Your task to perform on an android device: turn off javascript in the chrome app Image 0: 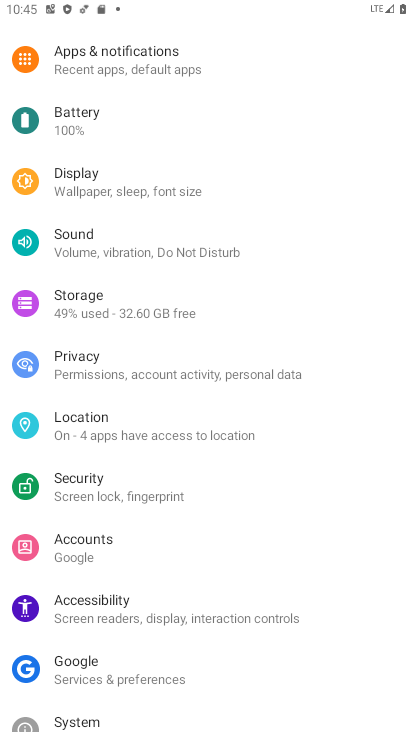
Step 0: press home button
Your task to perform on an android device: turn off javascript in the chrome app Image 1: 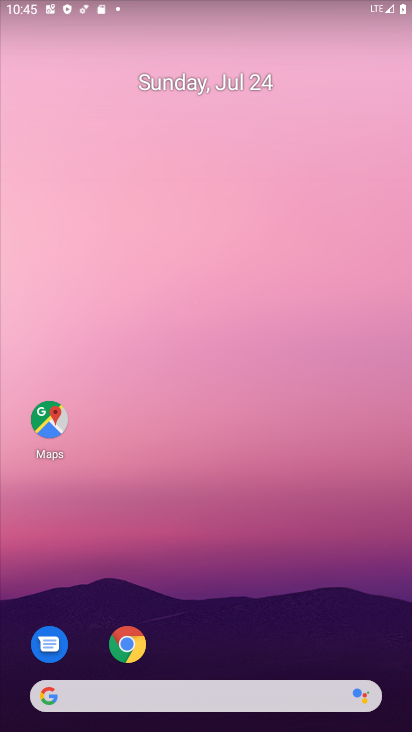
Step 1: click (133, 655)
Your task to perform on an android device: turn off javascript in the chrome app Image 2: 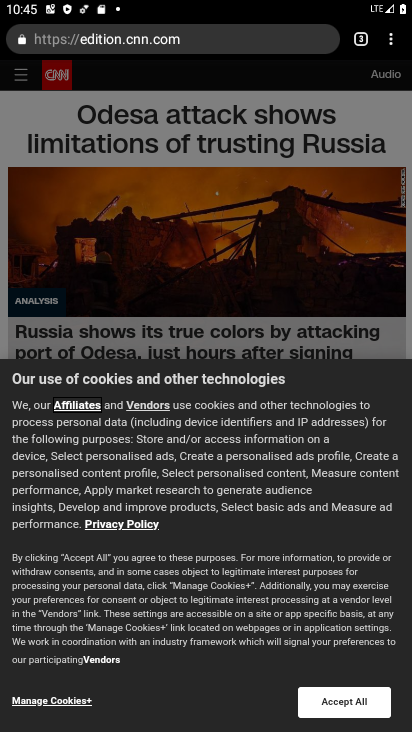
Step 2: click (394, 46)
Your task to perform on an android device: turn off javascript in the chrome app Image 3: 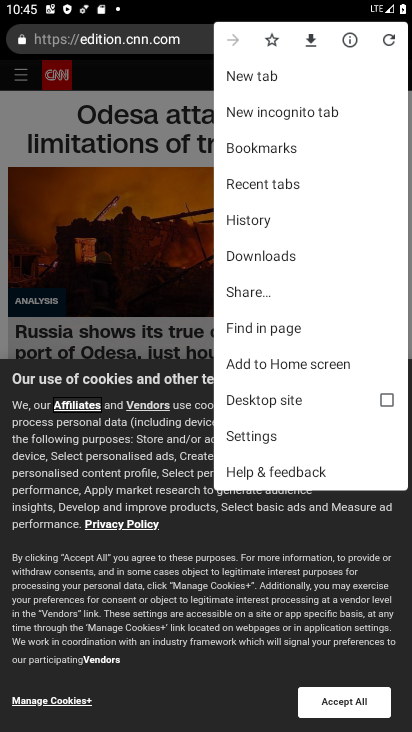
Step 3: click (272, 431)
Your task to perform on an android device: turn off javascript in the chrome app Image 4: 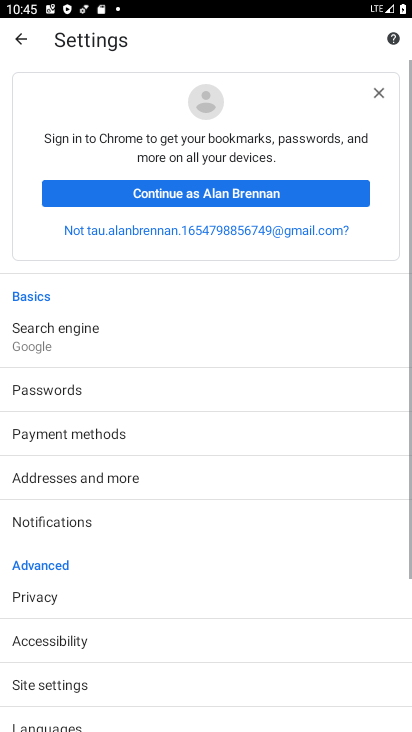
Step 4: click (54, 691)
Your task to perform on an android device: turn off javascript in the chrome app Image 5: 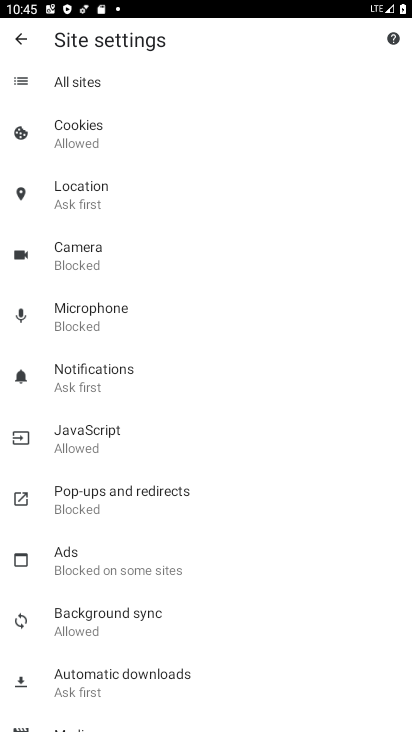
Step 5: click (96, 431)
Your task to perform on an android device: turn off javascript in the chrome app Image 6: 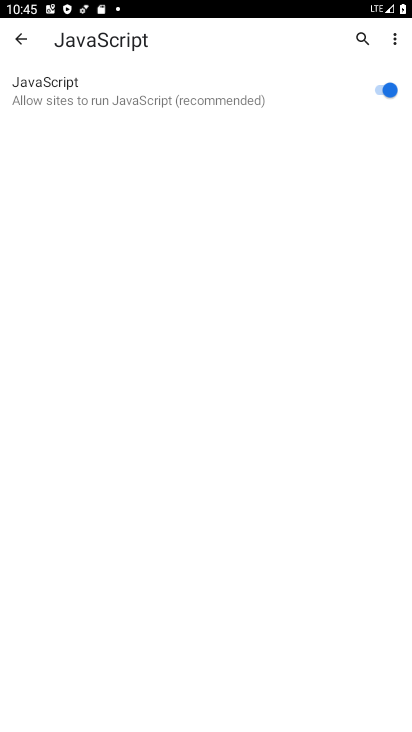
Step 6: click (379, 87)
Your task to perform on an android device: turn off javascript in the chrome app Image 7: 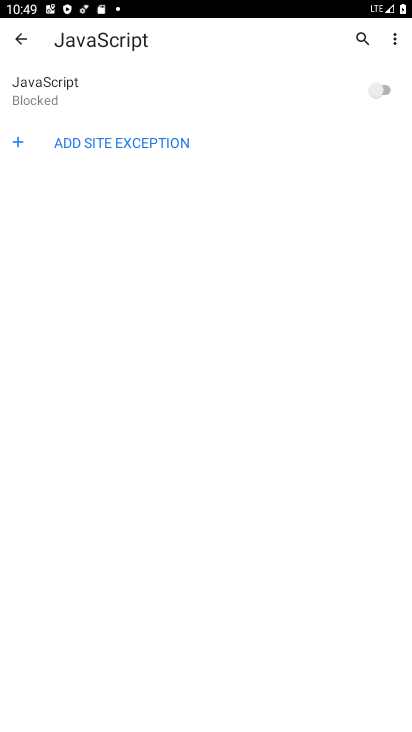
Step 7: task complete